Your task to perform on an android device: turn on bluetooth scan Image 0: 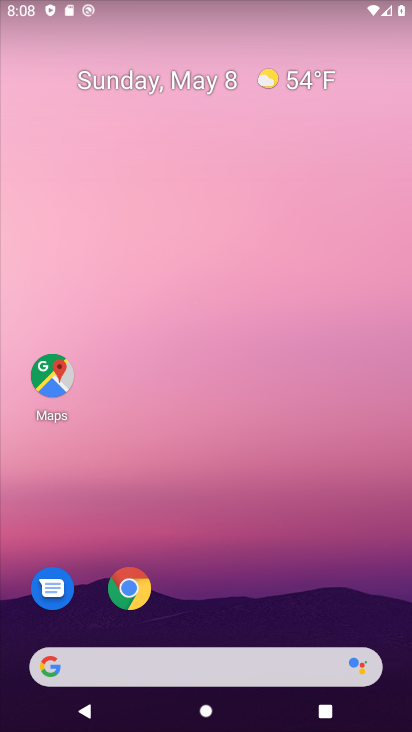
Step 0: drag from (4, 676) to (358, 132)
Your task to perform on an android device: turn on bluetooth scan Image 1: 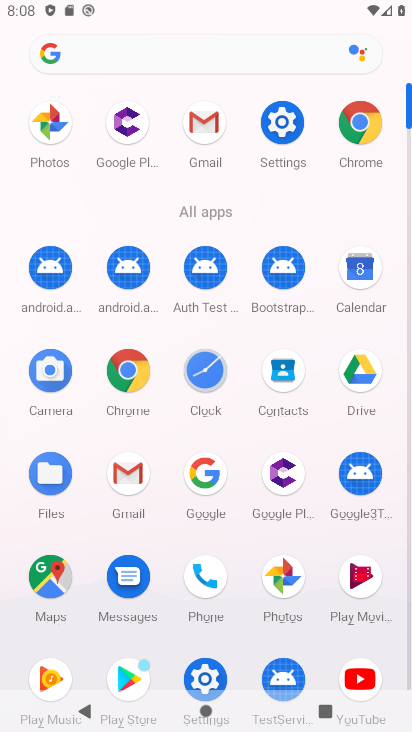
Step 1: click (283, 116)
Your task to perform on an android device: turn on bluetooth scan Image 2: 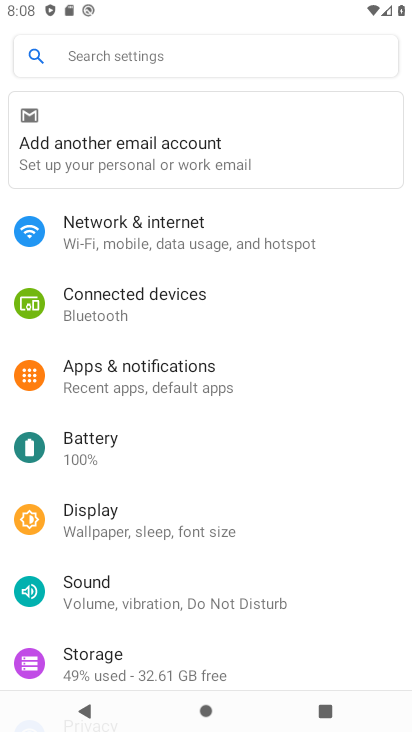
Step 2: drag from (134, 624) to (260, 309)
Your task to perform on an android device: turn on bluetooth scan Image 3: 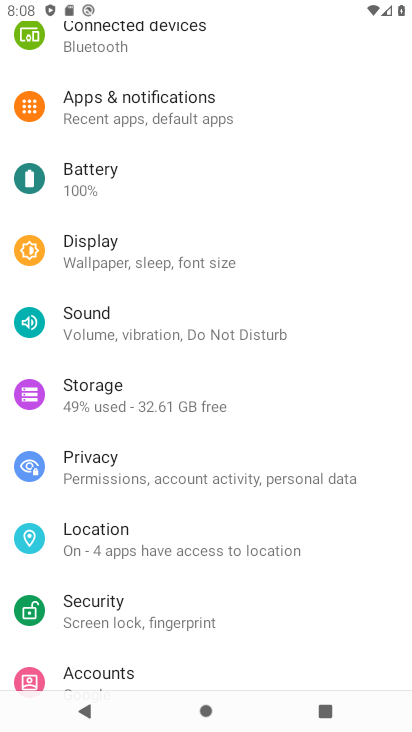
Step 3: click (151, 532)
Your task to perform on an android device: turn on bluetooth scan Image 4: 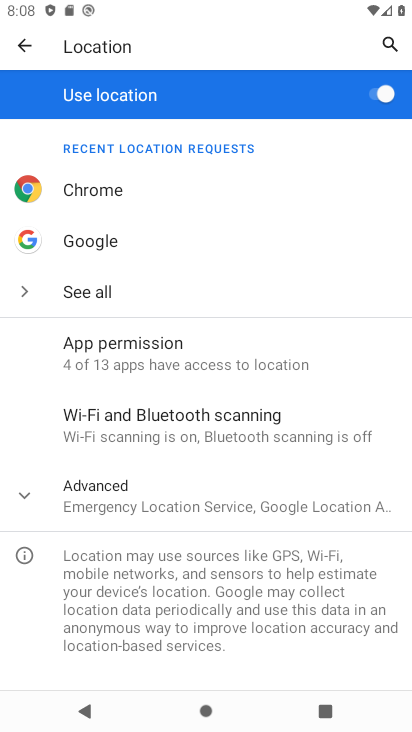
Step 4: click (194, 415)
Your task to perform on an android device: turn on bluetooth scan Image 5: 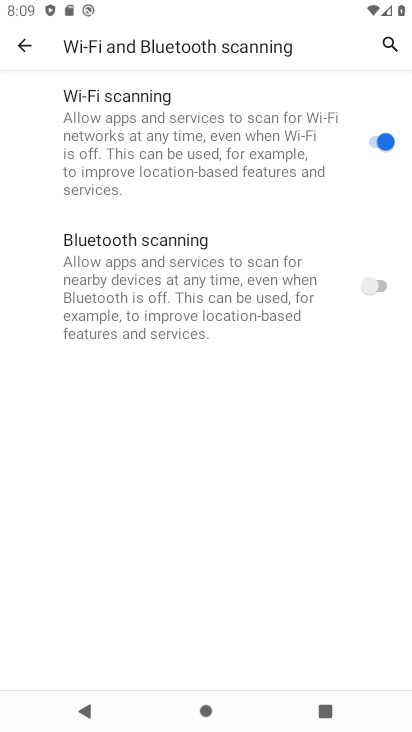
Step 5: click (366, 285)
Your task to perform on an android device: turn on bluetooth scan Image 6: 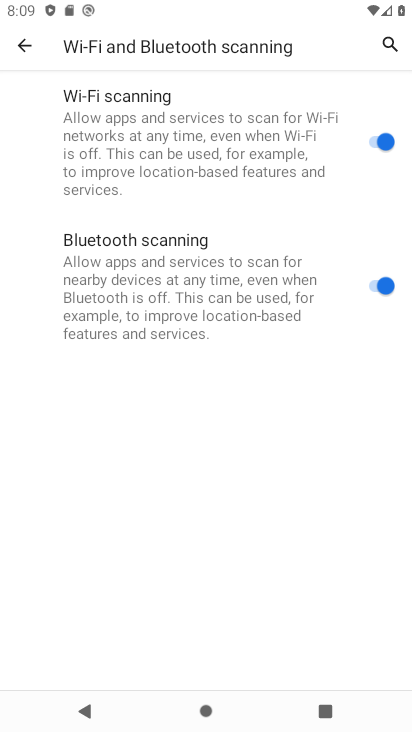
Step 6: task complete